Your task to perform on an android device: turn on bluetooth scan Image 0: 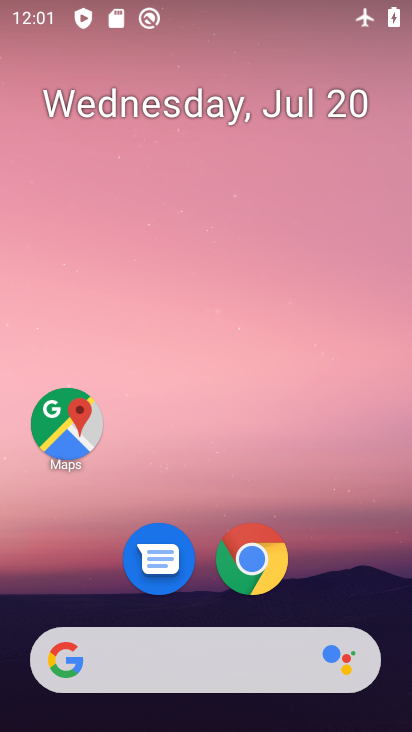
Step 0: drag from (374, 585) to (370, 127)
Your task to perform on an android device: turn on bluetooth scan Image 1: 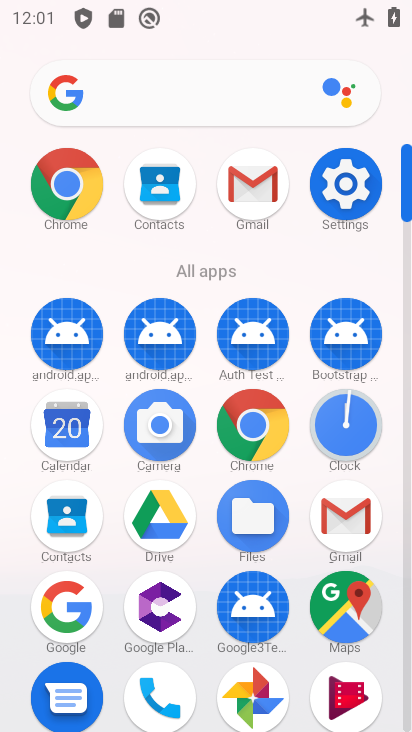
Step 1: click (356, 192)
Your task to perform on an android device: turn on bluetooth scan Image 2: 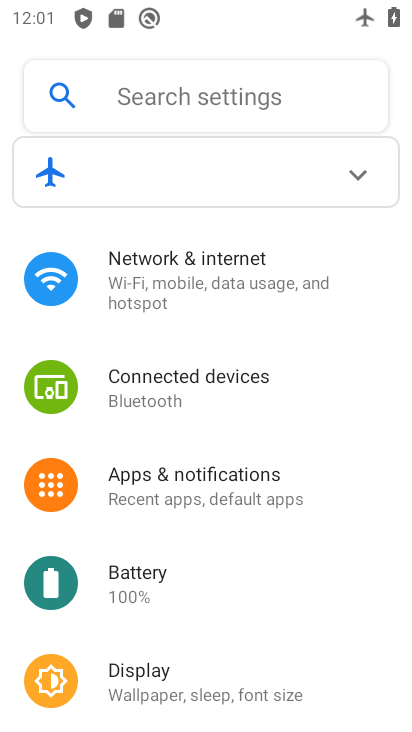
Step 2: drag from (363, 420) to (365, 337)
Your task to perform on an android device: turn on bluetooth scan Image 3: 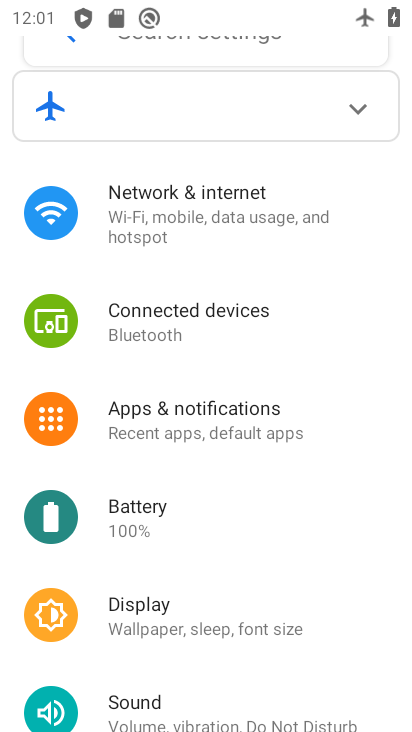
Step 3: drag from (353, 443) to (353, 356)
Your task to perform on an android device: turn on bluetooth scan Image 4: 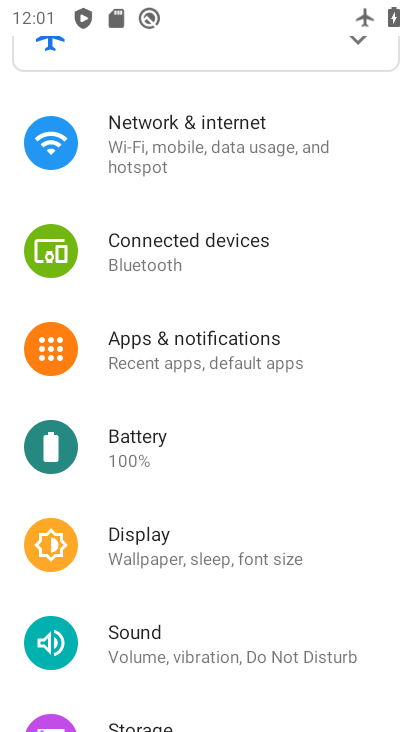
Step 4: drag from (351, 426) to (350, 345)
Your task to perform on an android device: turn on bluetooth scan Image 5: 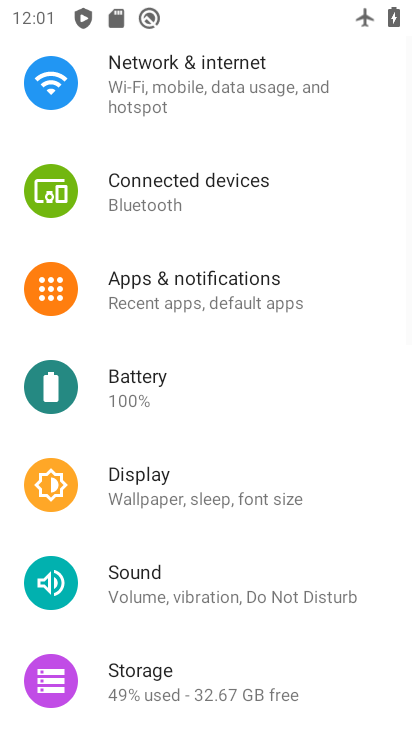
Step 5: drag from (350, 424) to (348, 344)
Your task to perform on an android device: turn on bluetooth scan Image 6: 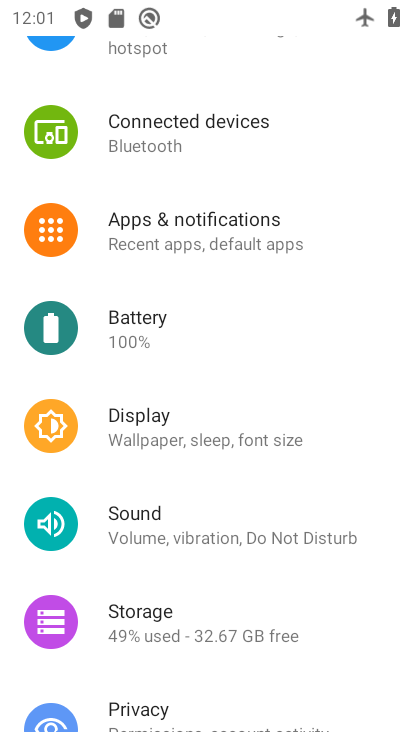
Step 6: drag from (352, 453) to (351, 373)
Your task to perform on an android device: turn on bluetooth scan Image 7: 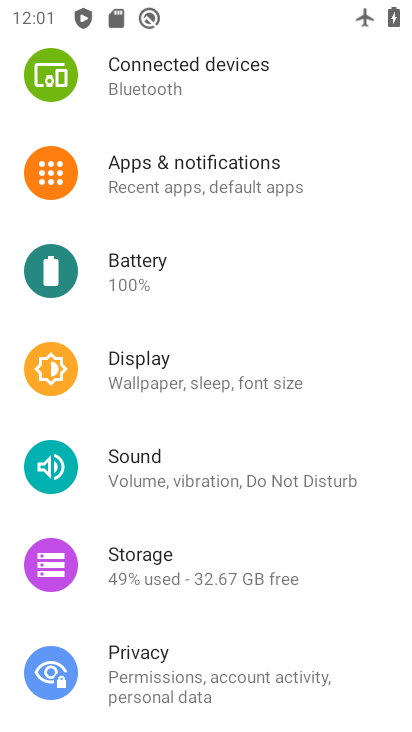
Step 7: drag from (352, 516) to (353, 420)
Your task to perform on an android device: turn on bluetooth scan Image 8: 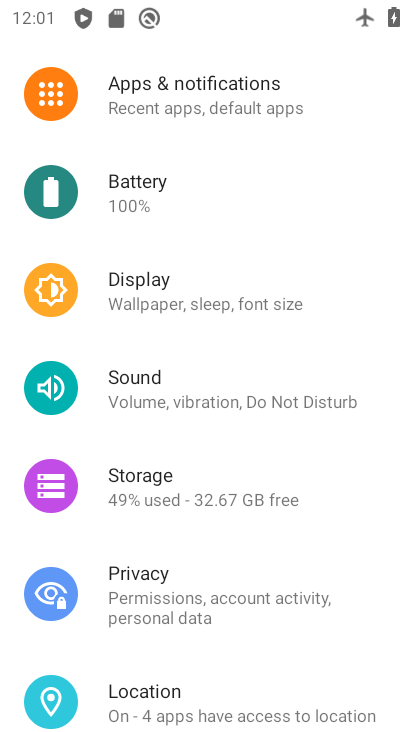
Step 8: drag from (355, 469) to (358, 381)
Your task to perform on an android device: turn on bluetooth scan Image 9: 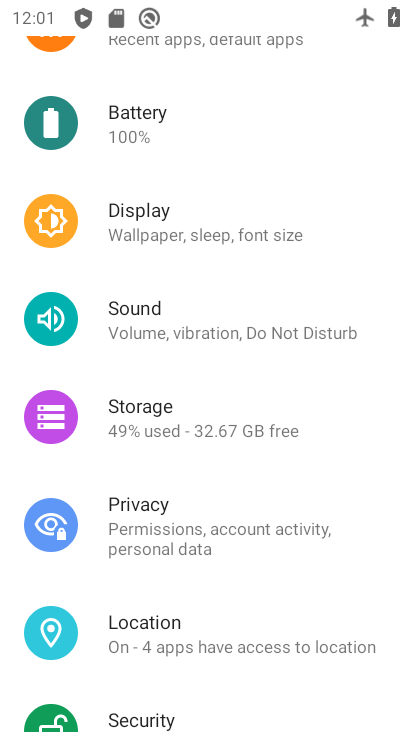
Step 9: drag from (343, 563) to (356, 493)
Your task to perform on an android device: turn on bluetooth scan Image 10: 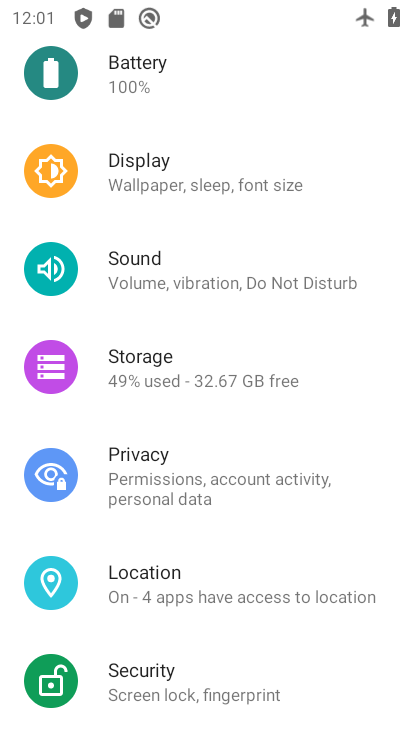
Step 10: drag from (352, 616) to (356, 525)
Your task to perform on an android device: turn on bluetooth scan Image 11: 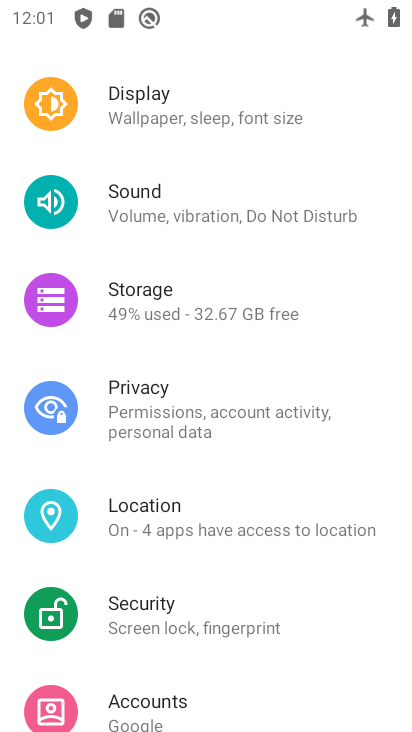
Step 11: click (326, 526)
Your task to perform on an android device: turn on bluetooth scan Image 12: 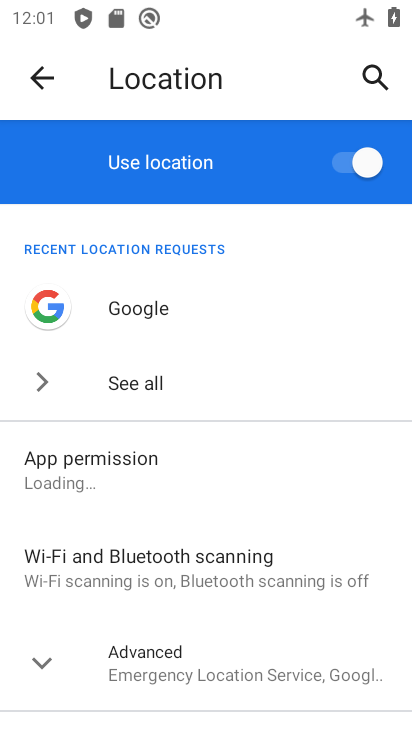
Step 12: click (187, 571)
Your task to perform on an android device: turn on bluetooth scan Image 13: 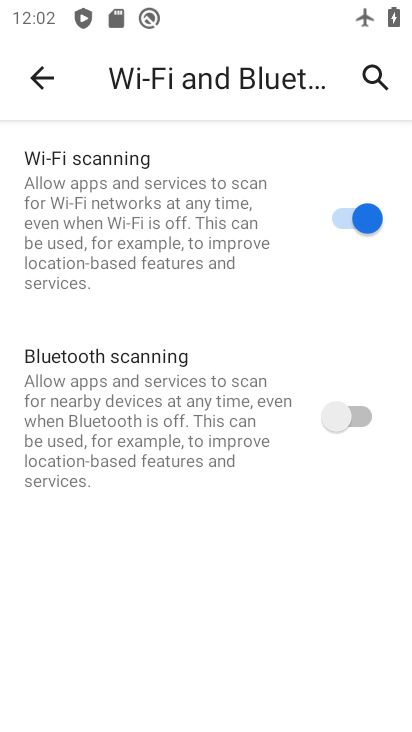
Step 13: click (341, 432)
Your task to perform on an android device: turn on bluetooth scan Image 14: 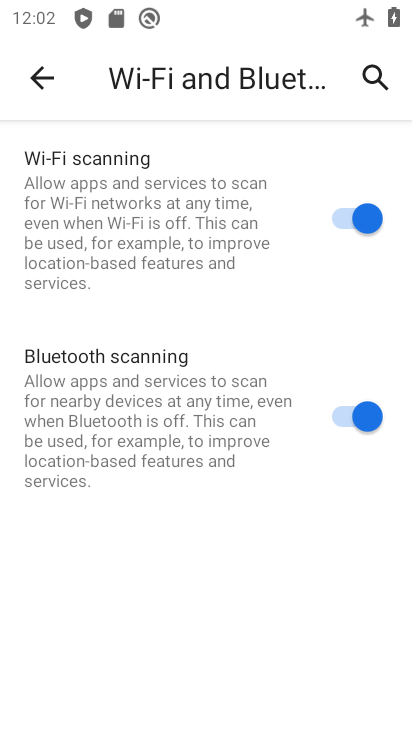
Step 14: task complete